Your task to perform on an android device: turn on airplane mode Image 0: 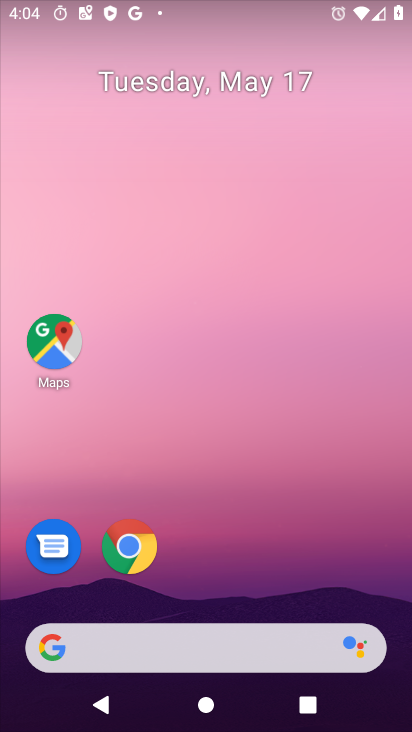
Step 0: drag from (403, 635) to (394, 283)
Your task to perform on an android device: turn on airplane mode Image 1: 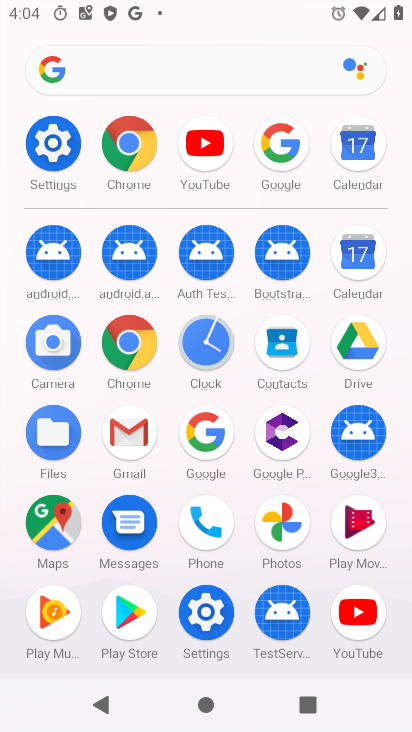
Step 1: click (66, 145)
Your task to perform on an android device: turn on airplane mode Image 2: 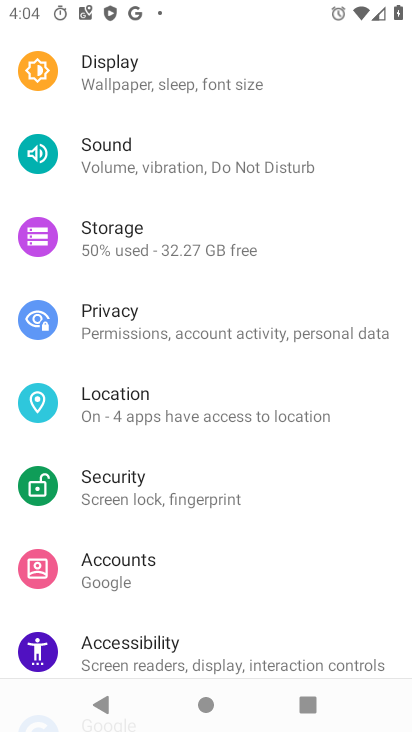
Step 2: drag from (324, 89) to (359, 420)
Your task to perform on an android device: turn on airplane mode Image 3: 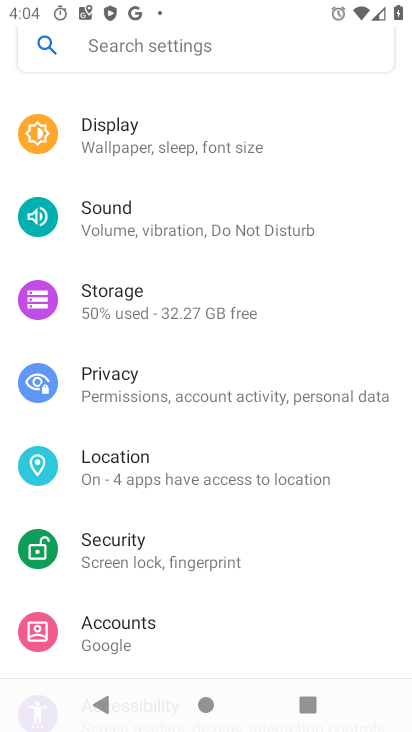
Step 3: drag from (298, 116) to (379, 633)
Your task to perform on an android device: turn on airplane mode Image 4: 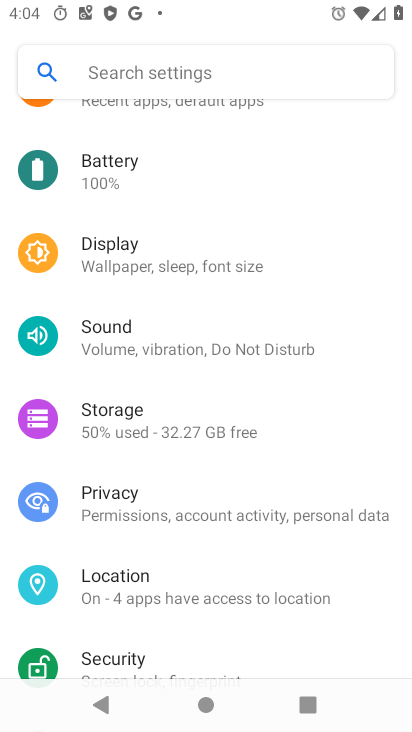
Step 4: drag from (343, 287) to (400, 652)
Your task to perform on an android device: turn on airplane mode Image 5: 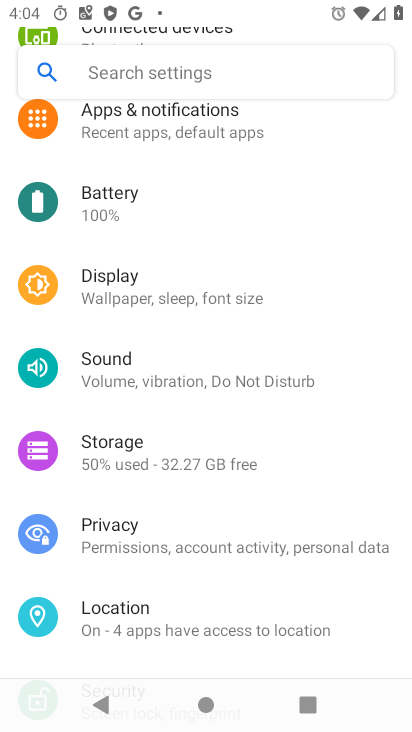
Step 5: drag from (351, 209) to (385, 589)
Your task to perform on an android device: turn on airplane mode Image 6: 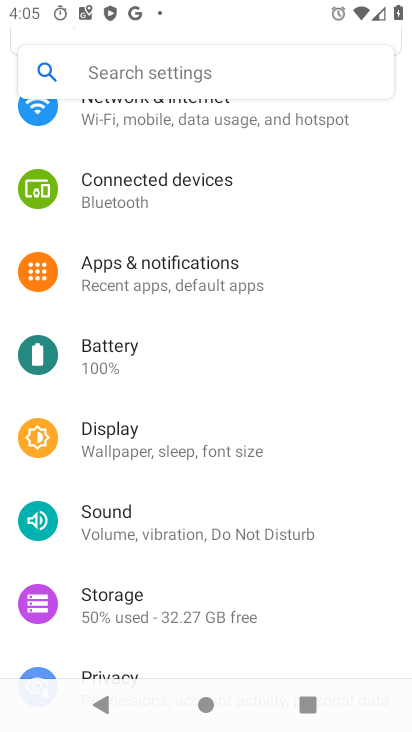
Step 6: drag from (337, 224) to (342, 541)
Your task to perform on an android device: turn on airplane mode Image 7: 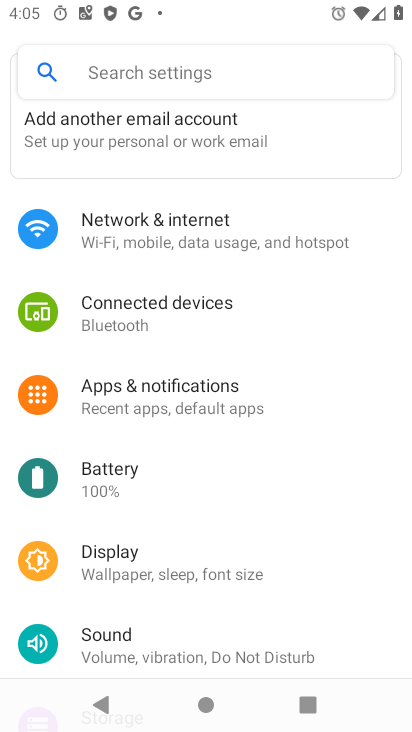
Step 7: click (177, 236)
Your task to perform on an android device: turn on airplane mode Image 8: 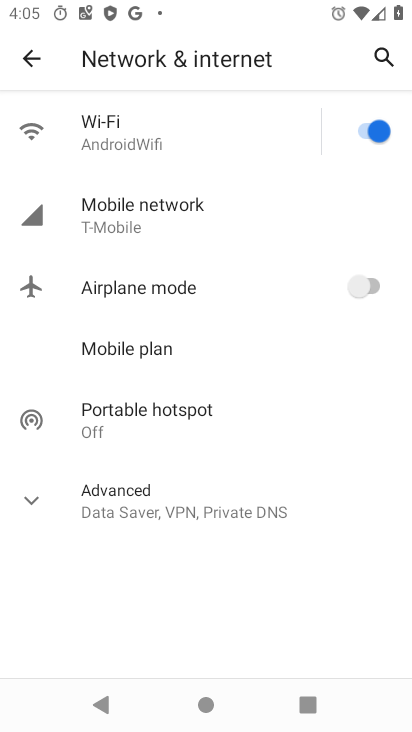
Step 8: click (366, 286)
Your task to perform on an android device: turn on airplane mode Image 9: 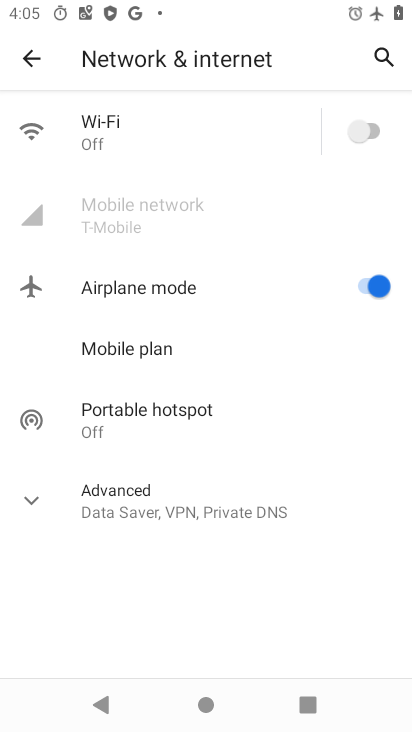
Step 9: task complete